Your task to perform on an android device: Open Google Chrome and click the shortcut for Amazon.com Image 0: 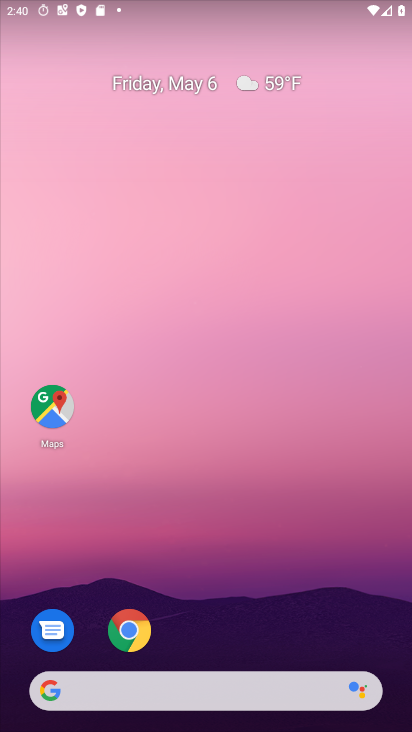
Step 0: click (143, 621)
Your task to perform on an android device: Open Google Chrome and click the shortcut for Amazon.com Image 1: 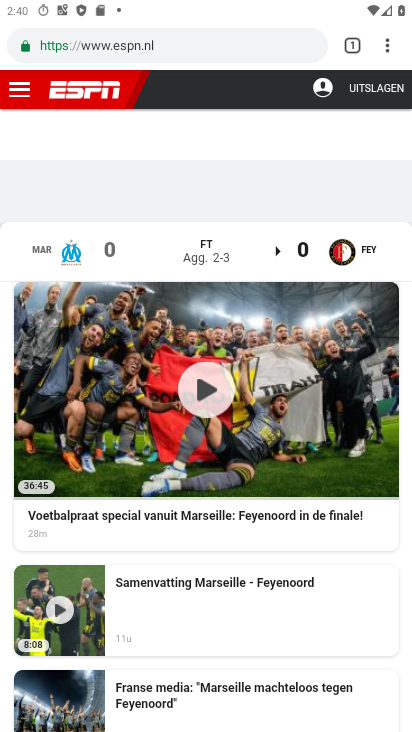
Step 1: click (357, 49)
Your task to perform on an android device: Open Google Chrome and click the shortcut for Amazon.com Image 2: 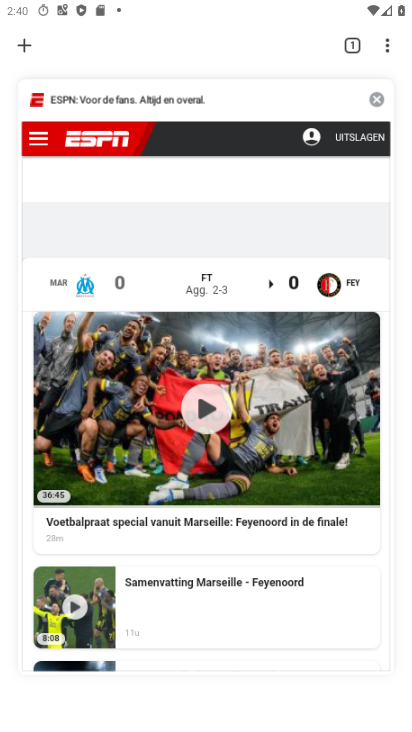
Step 2: click (27, 48)
Your task to perform on an android device: Open Google Chrome and click the shortcut for Amazon.com Image 3: 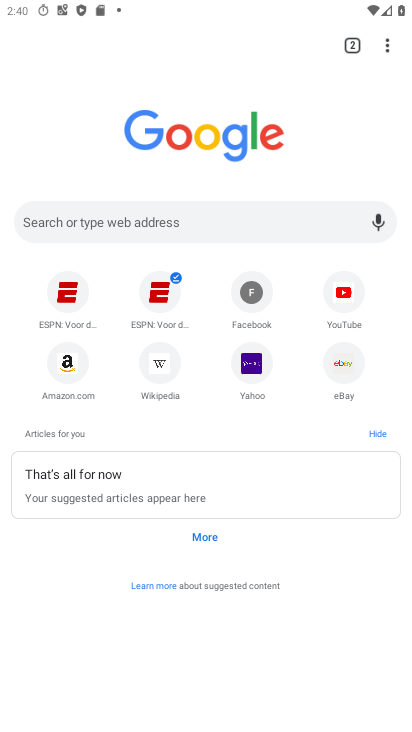
Step 3: click (57, 385)
Your task to perform on an android device: Open Google Chrome and click the shortcut for Amazon.com Image 4: 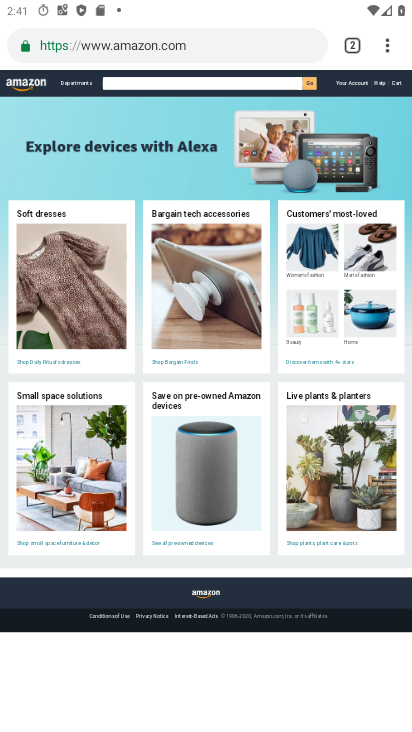
Step 4: task complete